Your task to perform on an android device: change the clock style Image 0: 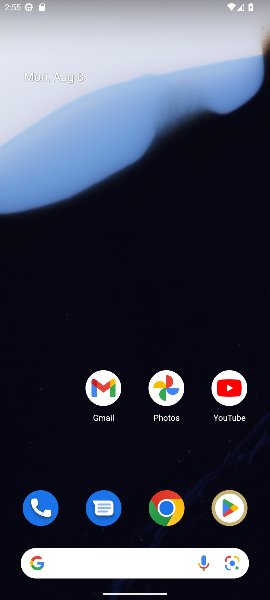
Step 0: drag from (42, 457) to (41, 108)
Your task to perform on an android device: change the clock style Image 1: 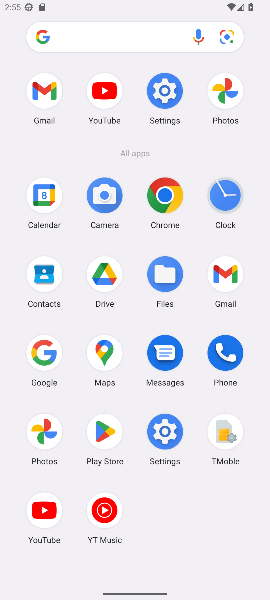
Step 1: click (225, 193)
Your task to perform on an android device: change the clock style Image 2: 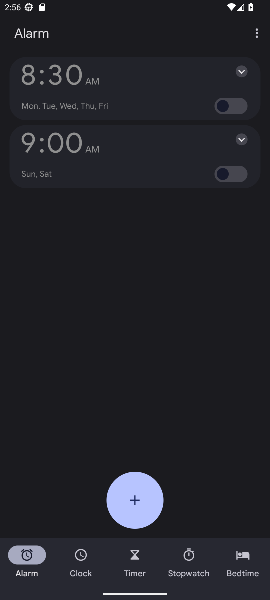
Step 2: click (257, 34)
Your task to perform on an android device: change the clock style Image 3: 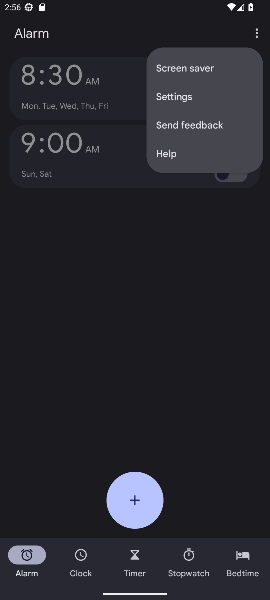
Step 3: click (179, 94)
Your task to perform on an android device: change the clock style Image 4: 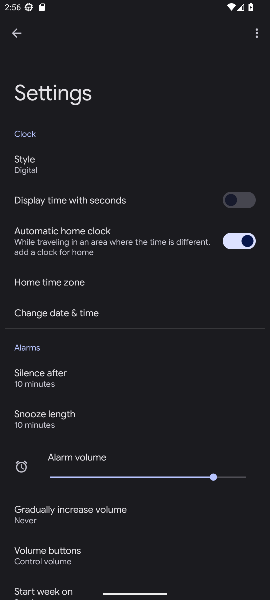
Step 4: click (30, 159)
Your task to perform on an android device: change the clock style Image 5: 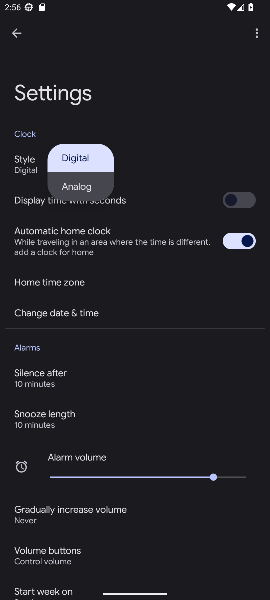
Step 5: click (65, 181)
Your task to perform on an android device: change the clock style Image 6: 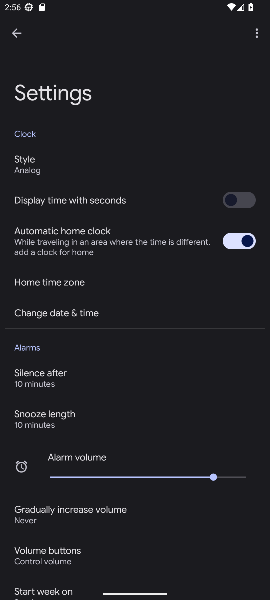
Step 6: task complete